Your task to perform on an android device: change alarm snooze length Image 0: 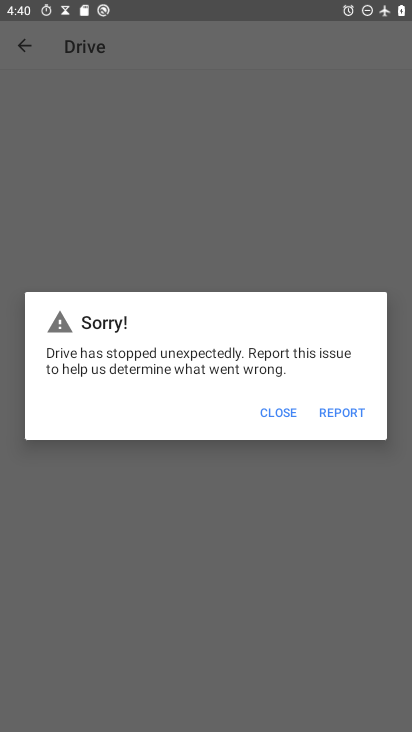
Step 0: press home button
Your task to perform on an android device: change alarm snooze length Image 1: 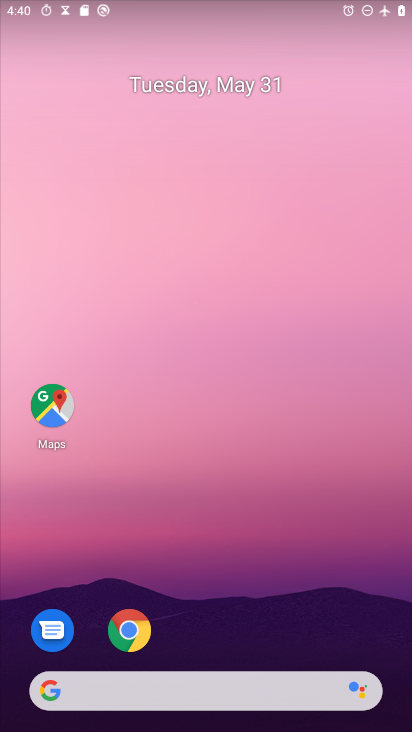
Step 1: drag from (265, 552) to (286, 25)
Your task to perform on an android device: change alarm snooze length Image 2: 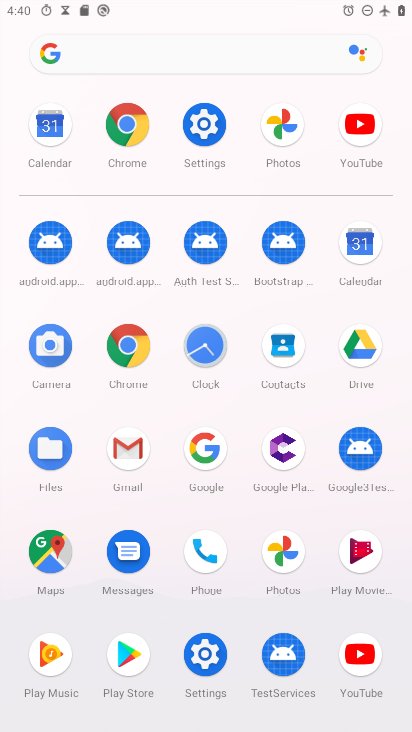
Step 2: click (205, 132)
Your task to perform on an android device: change alarm snooze length Image 3: 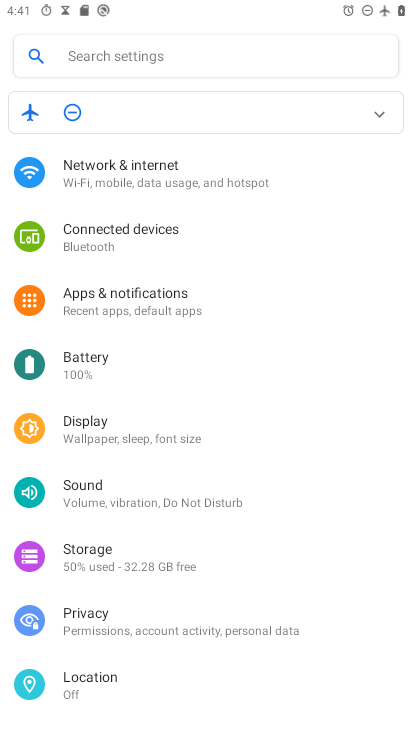
Step 3: press home button
Your task to perform on an android device: change alarm snooze length Image 4: 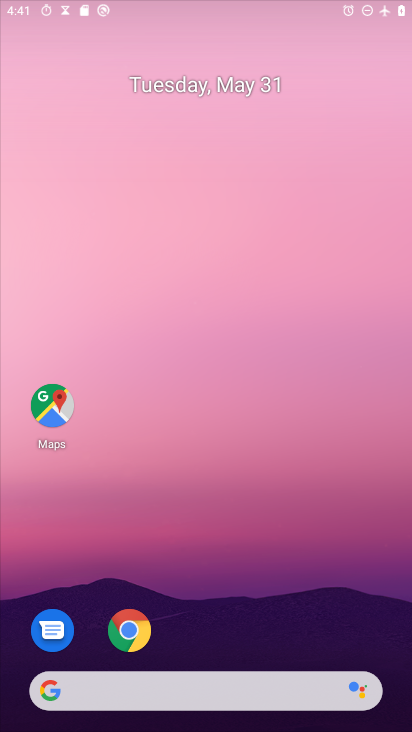
Step 4: drag from (302, 631) to (337, 122)
Your task to perform on an android device: change alarm snooze length Image 5: 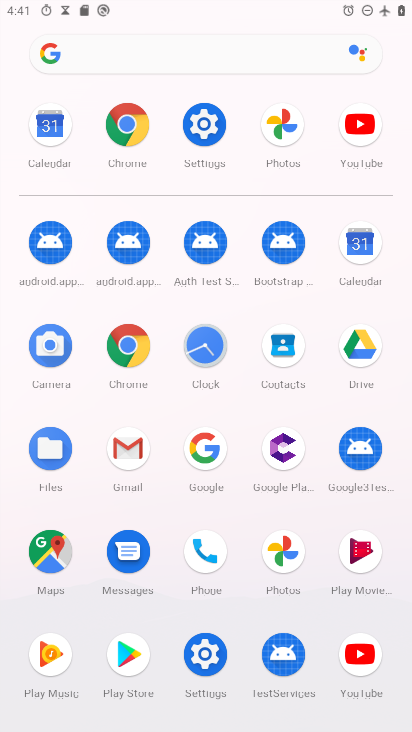
Step 5: click (207, 347)
Your task to perform on an android device: change alarm snooze length Image 6: 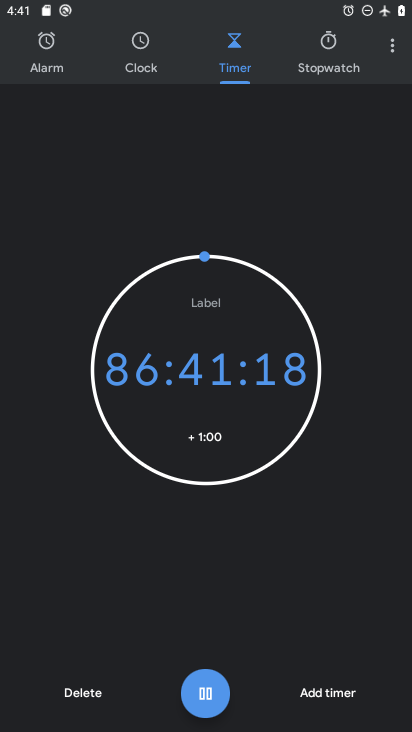
Step 6: click (405, 38)
Your task to perform on an android device: change alarm snooze length Image 7: 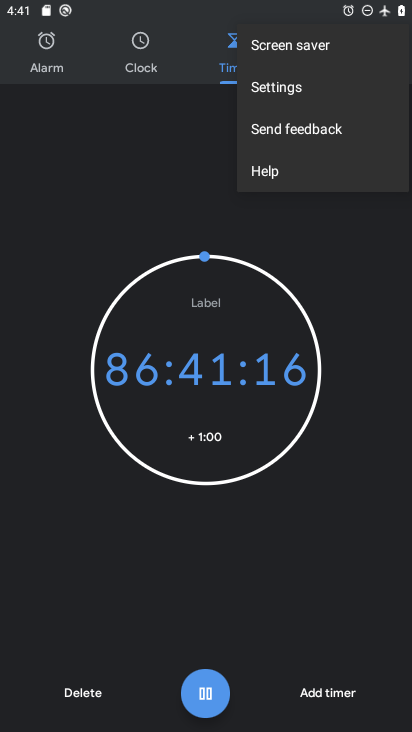
Step 7: click (282, 99)
Your task to perform on an android device: change alarm snooze length Image 8: 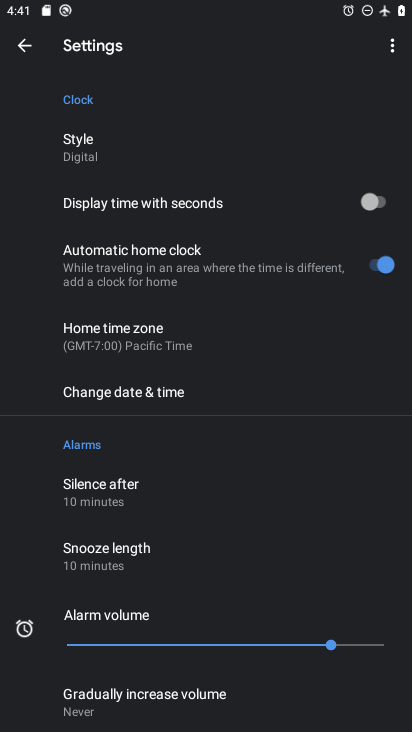
Step 8: click (161, 556)
Your task to perform on an android device: change alarm snooze length Image 9: 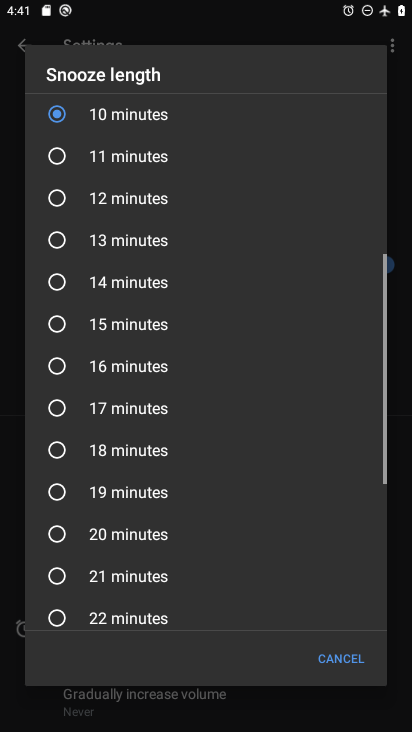
Step 9: click (96, 158)
Your task to perform on an android device: change alarm snooze length Image 10: 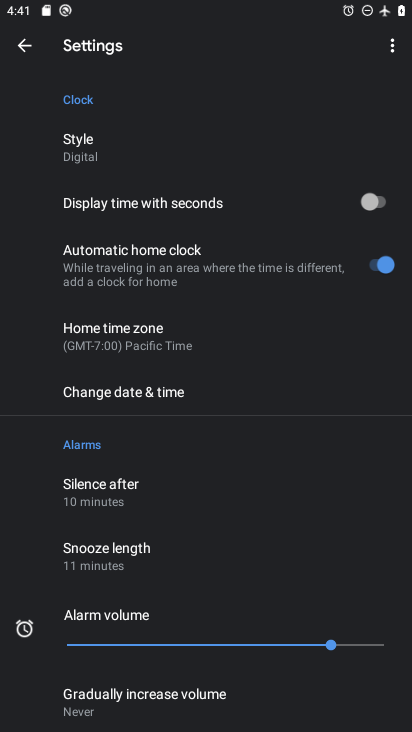
Step 10: task complete